Your task to perform on an android device: Go to internet settings Image 0: 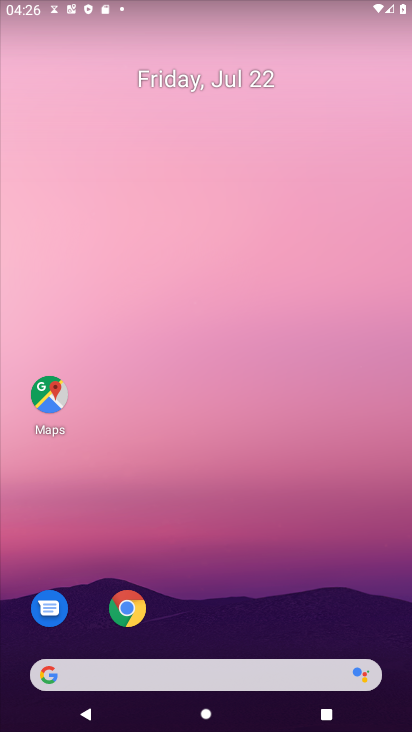
Step 0: drag from (244, 726) to (246, 228)
Your task to perform on an android device: Go to internet settings Image 1: 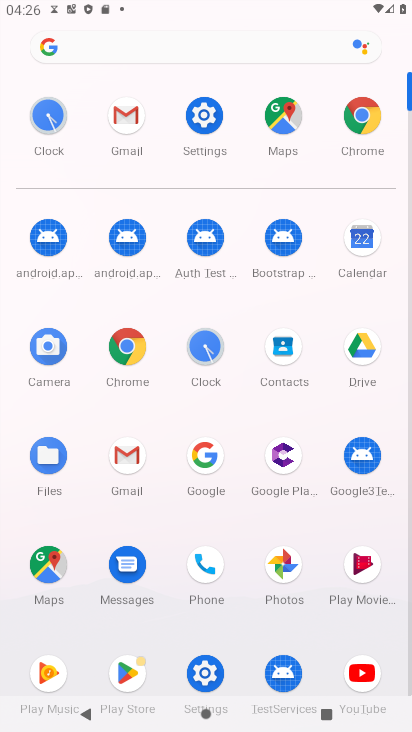
Step 1: click (207, 113)
Your task to perform on an android device: Go to internet settings Image 2: 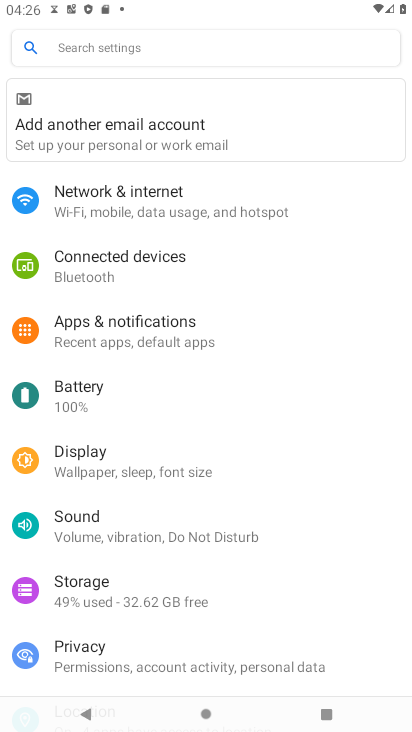
Step 2: click (128, 202)
Your task to perform on an android device: Go to internet settings Image 3: 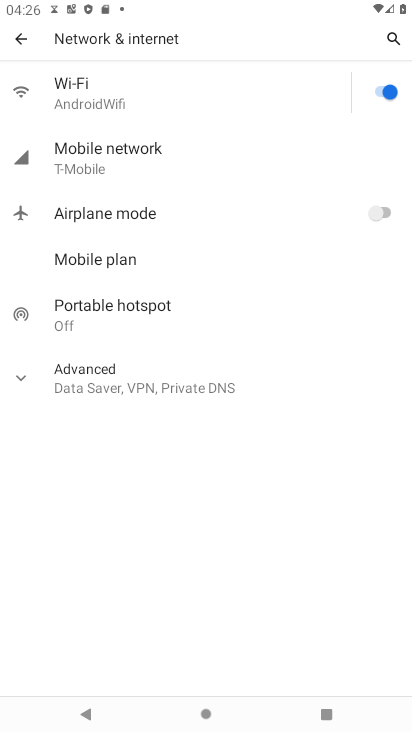
Step 3: task complete